Your task to perform on an android device: Clear the shopping cart on target. Add "macbook" to the cart on target Image 0: 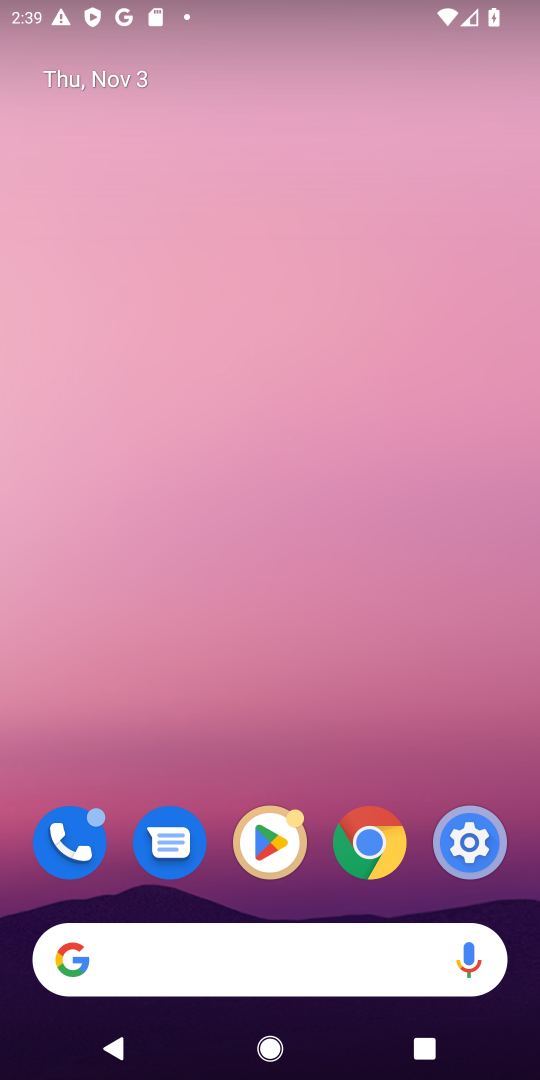
Step 0: press home button
Your task to perform on an android device: Clear the shopping cart on target. Add "macbook" to the cart on target Image 1: 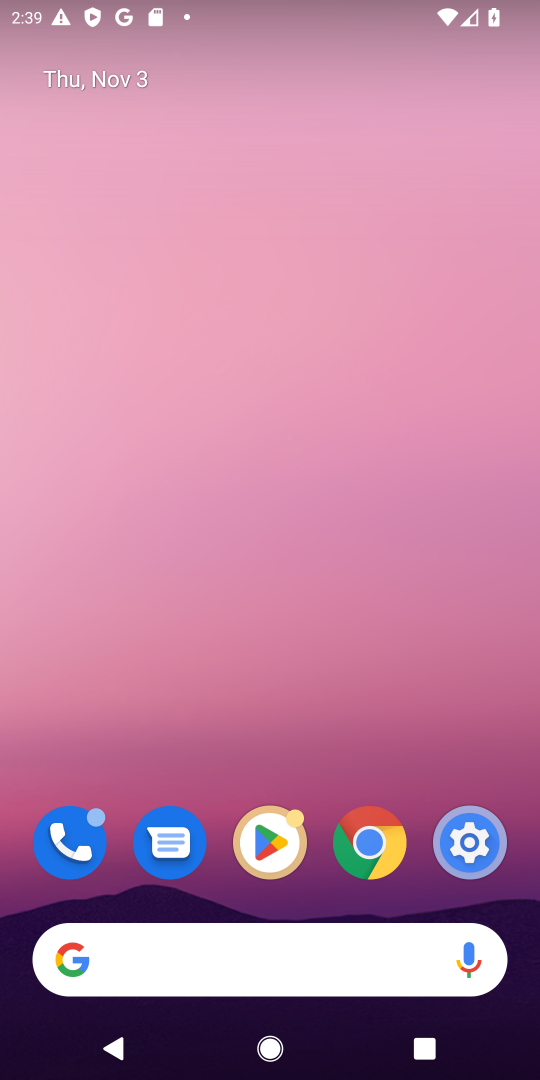
Step 1: click (108, 956)
Your task to perform on an android device: Clear the shopping cart on target. Add "macbook" to the cart on target Image 2: 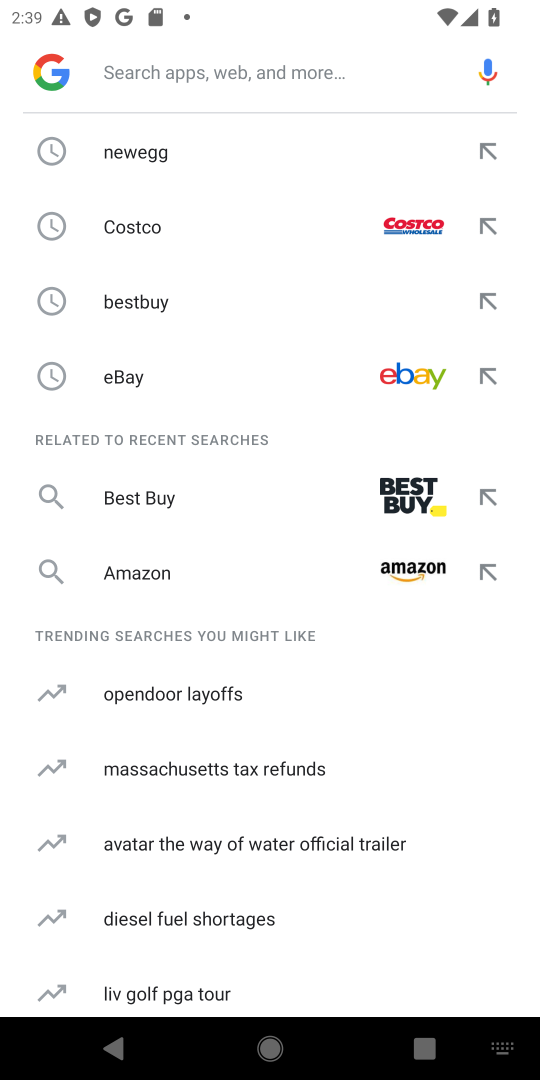
Step 2: type "target"
Your task to perform on an android device: Clear the shopping cart on target. Add "macbook" to the cart on target Image 3: 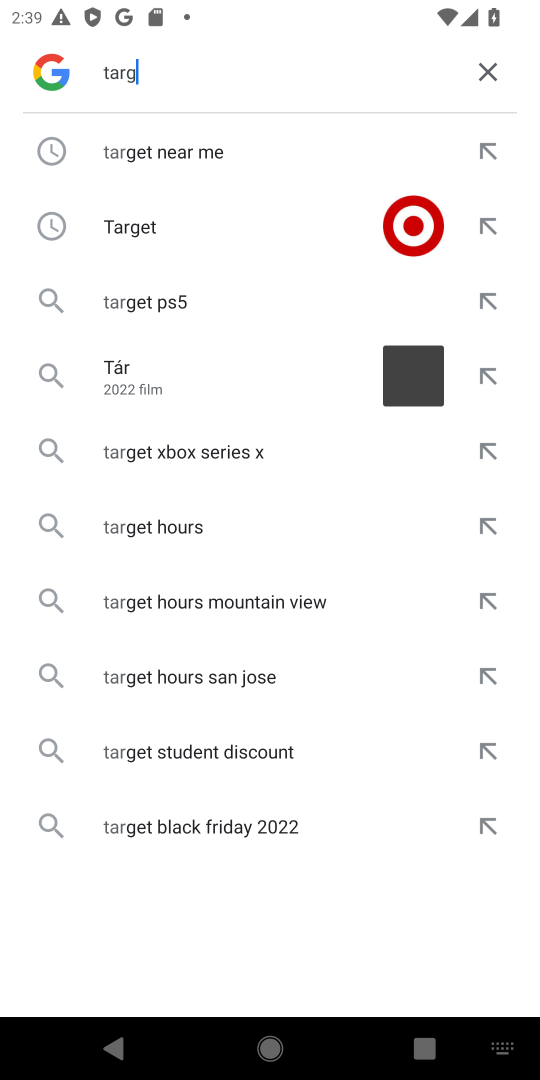
Step 3: press enter
Your task to perform on an android device: Clear the shopping cart on target. Add "macbook" to the cart on target Image 4: 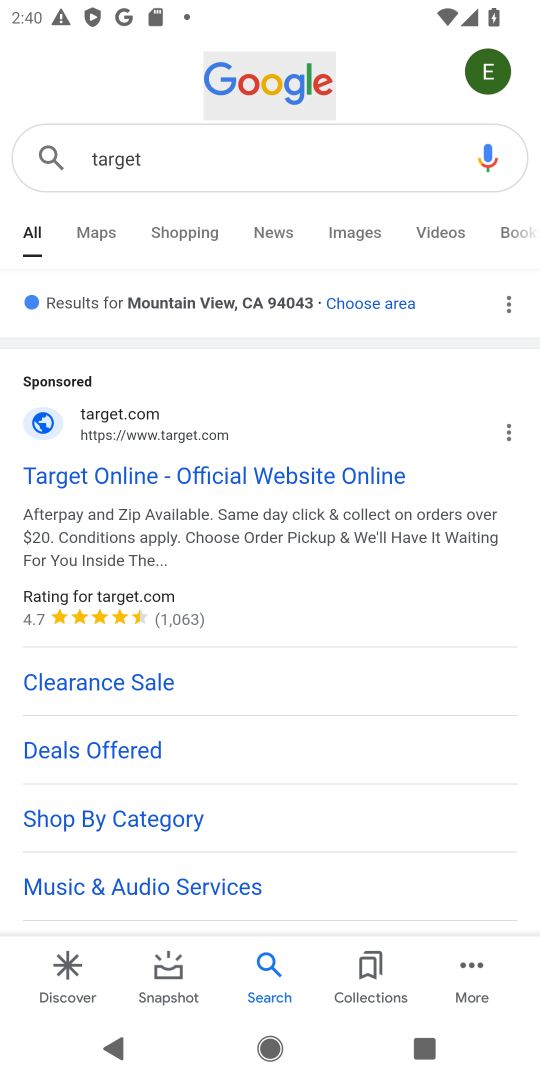
Step 4: click (131, 476)
Your task to perform on an android device: Clear the shopping cart on target. Add "macbook" to the cart on target Image 5: 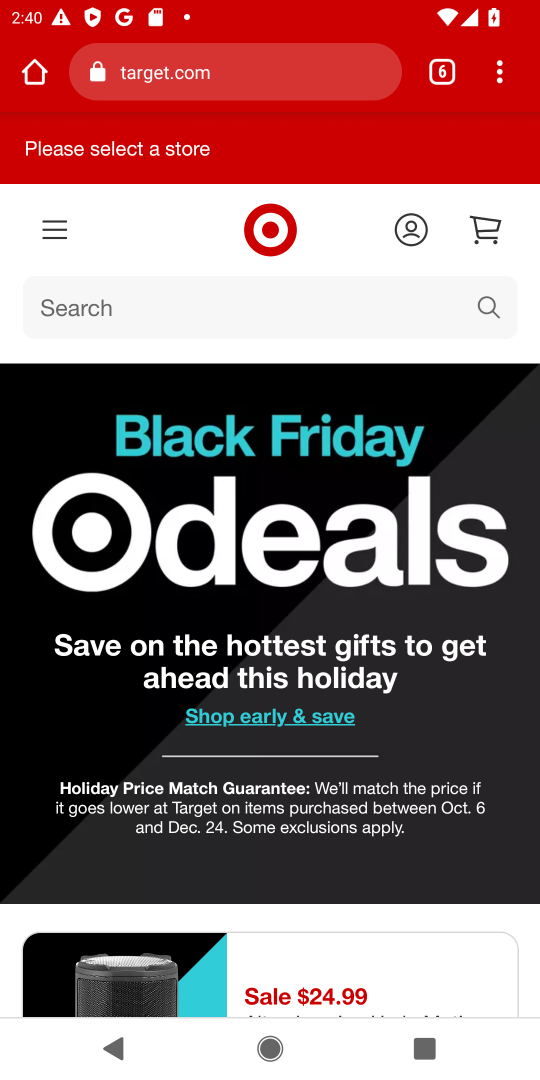
Step 5: click (103, 302)
Your task to perform on an android device: Clear the shopping cart on target. Add "macbook" to the cart on target Image 6: 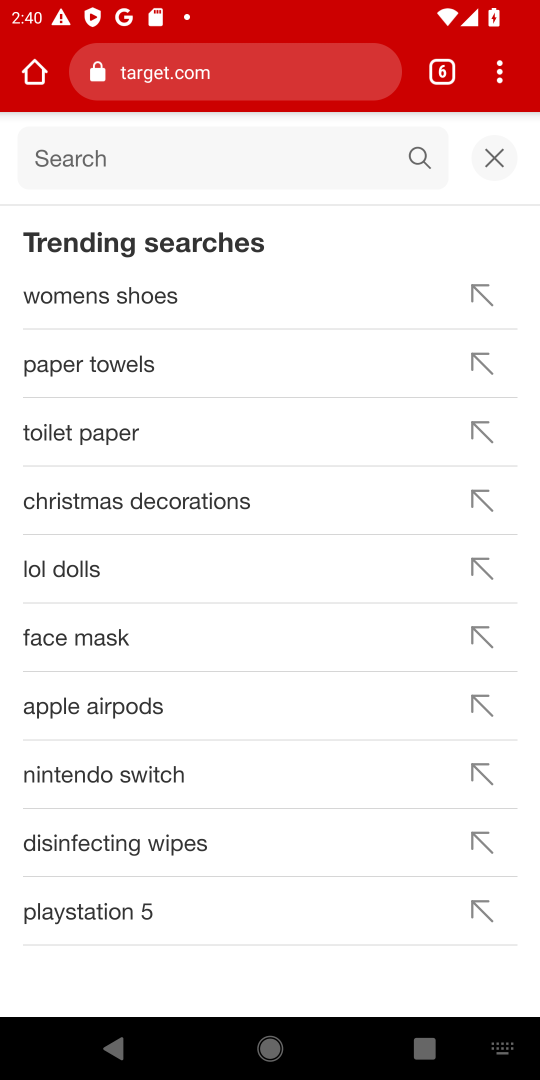
Step 6: type "macbook"
Your task to perform on an android device: Clear the shopping cart on target. Add "macbook" to the cart on target Image 7: 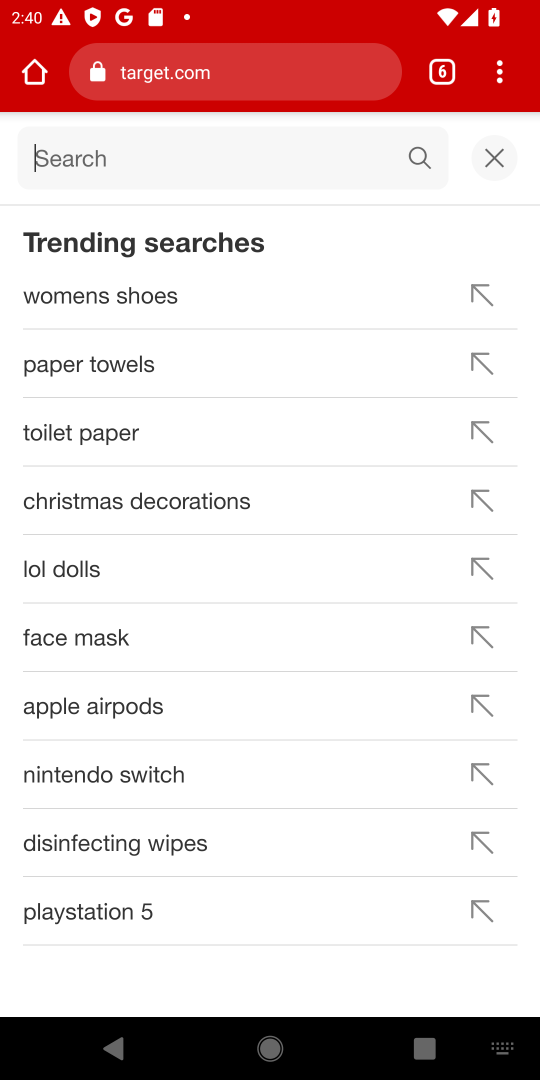
Step 7: press enter
Your task to perform on an android device: Clear the shopping cart on target. Add "macbook" to the cart on target Image 8: 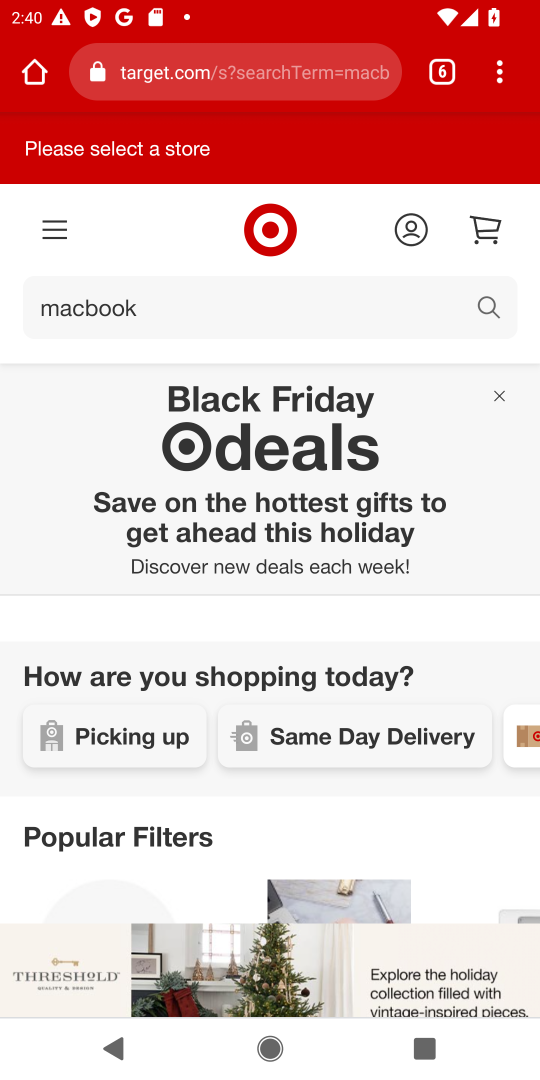
Step 8: task complete